Your task to perform on an android device: Go to network settings Image 0: 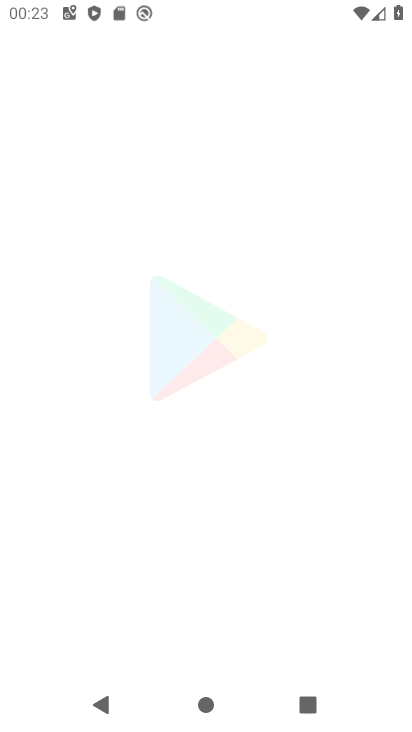
Step 0: drag from (173, 613) to (258, 239)
Your task to perform on an android device: Go to network settings Image 1: 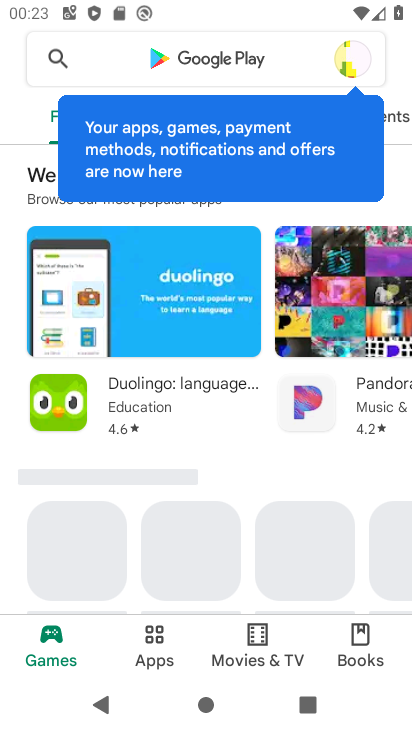
Step 1: press home button
Your task to perform on an android device: Go to network settings Image 2: 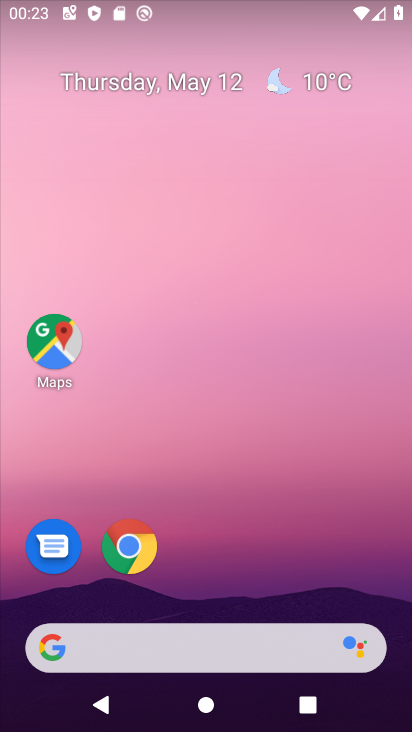
Step 2: drag from (176, 592) to (246, 219)
Your task to perform on an android device: Go to network settings Image 3: 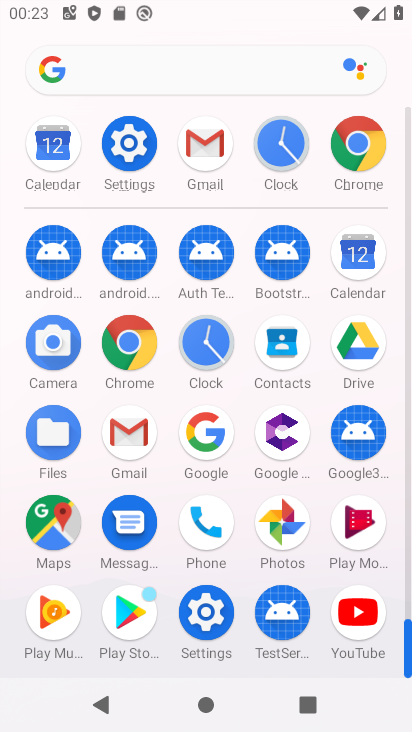
Step 3: click (211, 606)
Your task to perform on an android device: Go to network settings Image 4: 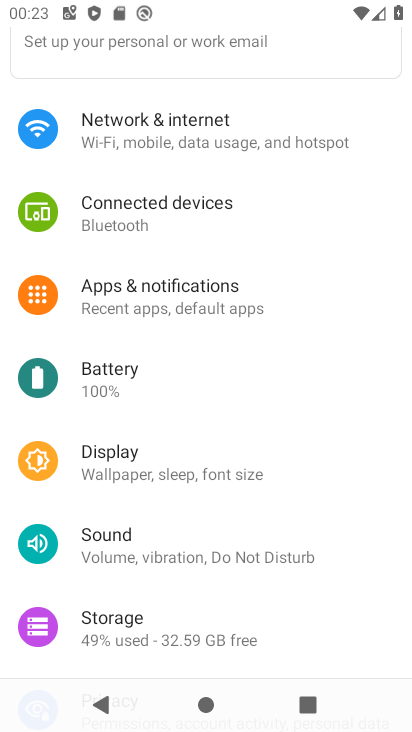
Step 4: click (218, 160)
Your task to perform on an android device: Go to network settings Image 5: 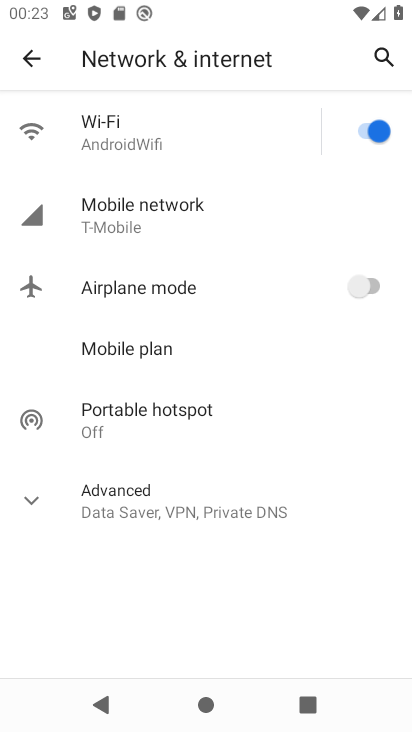
Step 5: task complete